Your task to perform on an android device: turn vacation reply on in the gmail app Image 0: 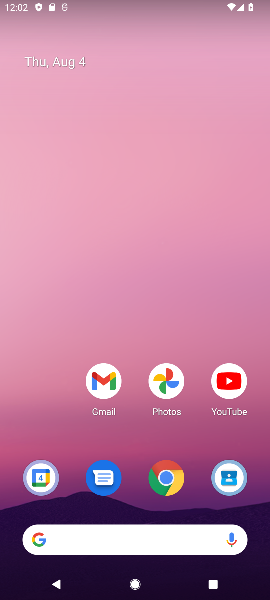
Step 0: drag from (120, 429) to (178, 152)
Your task to perform on an android device: turn vacation reply on in the gmail app Image 1: 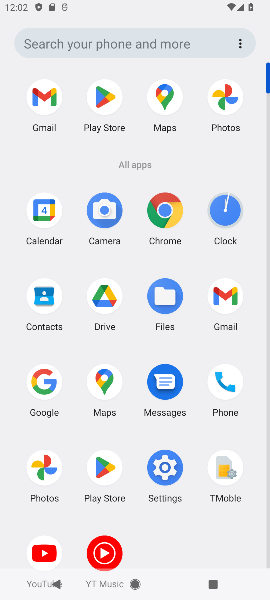
Step 1: click (220, 292)
Your task to perform on an android device: turn vacation reply on in the gmail app Image 2: 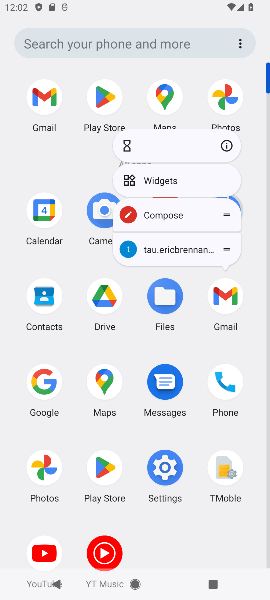
Step 2: click (221, 296)
Your task to perform on an android device: turn vacation reply on in the gmail app Image 3: 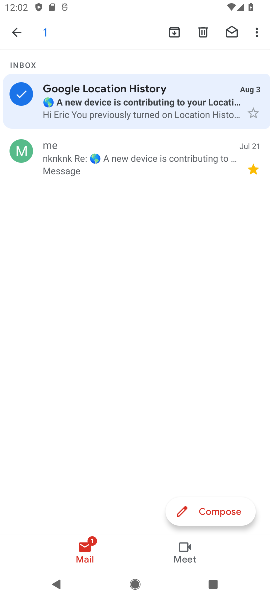
Step 3: click (13, 28)
Your task to perform on an android device: turn vacation reply on in the gmail app Image 4: 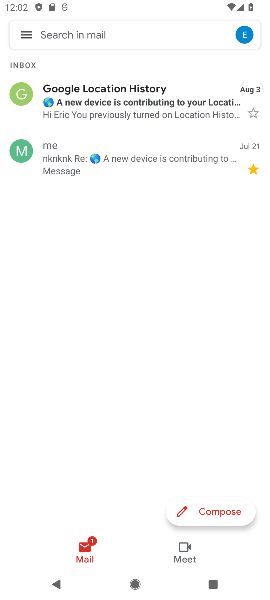
Step 4: click (24, 28)
Your task to perform on an android device: turn vacation reply on in the gmail app Image 5: 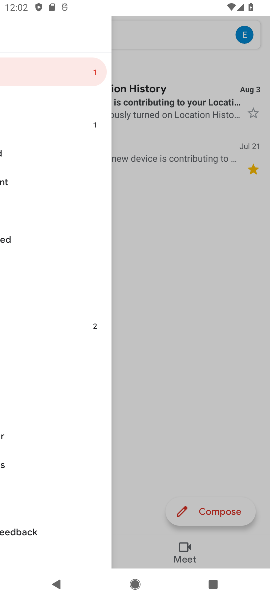
Step 5: click (22, 32)
Your task to perform on an android device: turn vacation reply on in the gmail app Image 6: 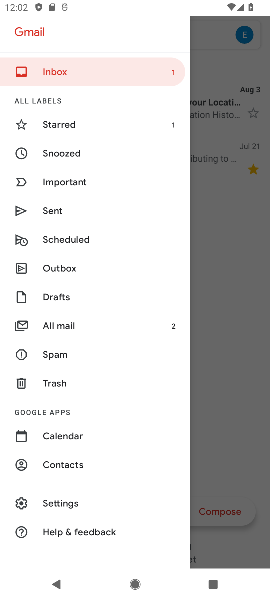
Step 6: click (69, 492)
Your task to perform on an android device: turn vacation reply on in the gmail app Image 7: 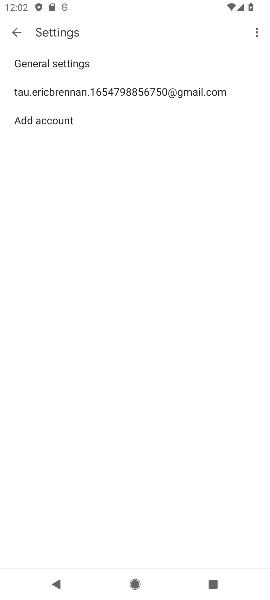
Step 7: click (124, 88)
Your task to perform on an android device: turn vacation reply on in the gmail app Image 8: 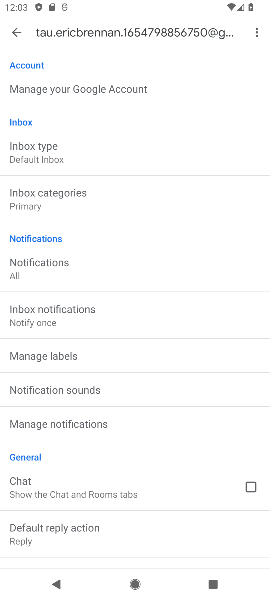
Step 8: drag from (156, 518) to (116, 249)
Your task to perform on an android device: turn vacation reply on in the gmail app Image 9: 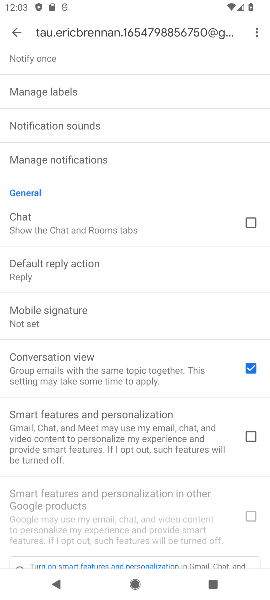
Step 9: drag from (156, 519) to (139, 349)
Your task to perform on an android device: turn vacation reply on in the gmail app Image 10: 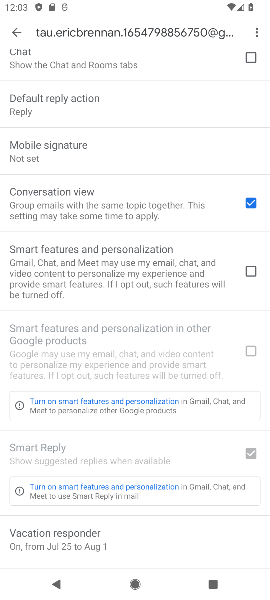
Step 10: click (59, 541)
Your task to perform on an android device: turn vacation reply on in the gmail app Image 11: 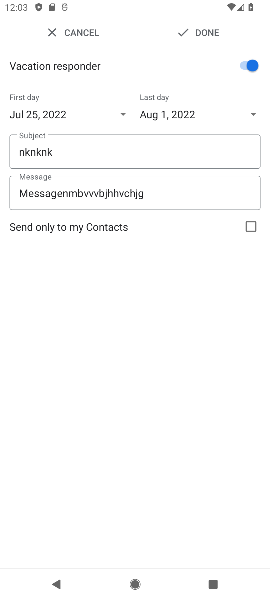
Step 11: click (197, 31)
Your task to perform on an android device: turn vacation reply on in the gmail app Image 12: 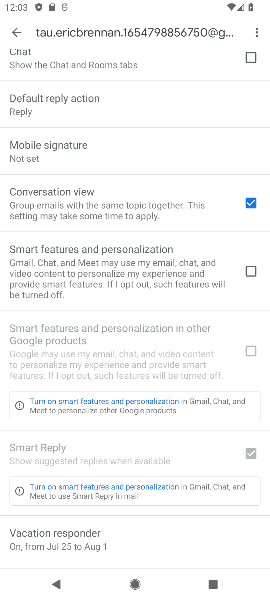
Step 12: task complete